Your task to perform on an android device: turn smart compose on in the gmail app Image 0: 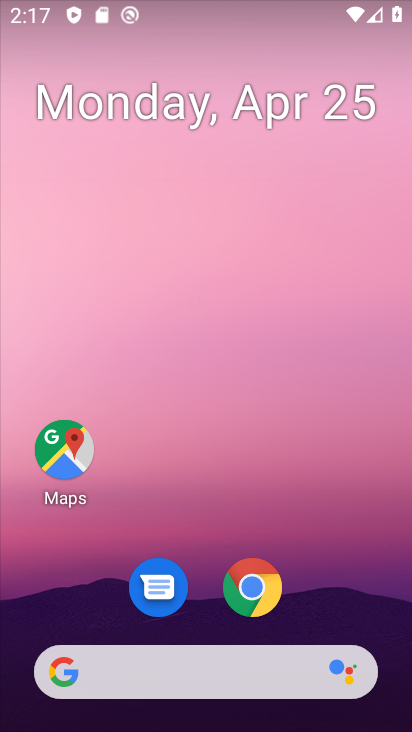
Step 0: drag from (275, 555) to (213, 221)
Your task to perform on an android device: turn smart compose on in the gmail app Image 1: 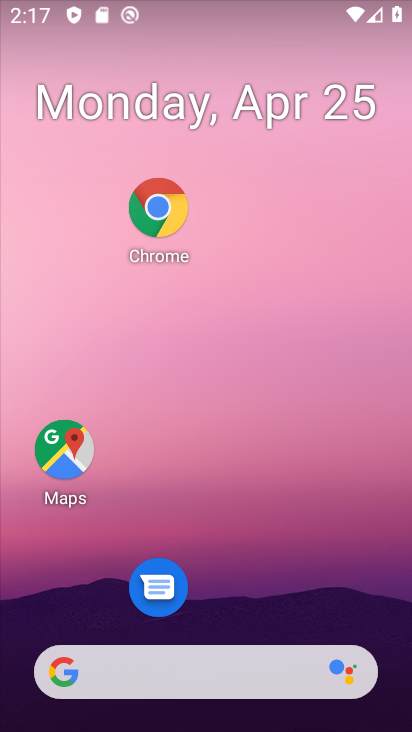
Step 1: click (245, 168)
Your task to perform on an android device: turn smart compose on in the gmail app Image 2: 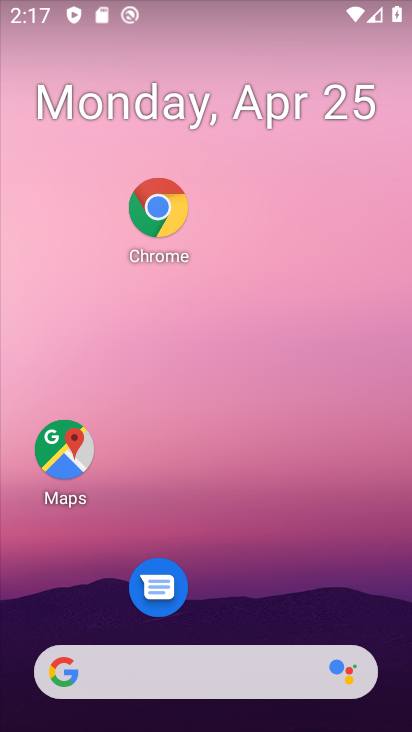
Step 2: drag from (303, 561) to (240, 205)
Your task to perform on an android device: turn smart compose on in the gmail app Image 3: 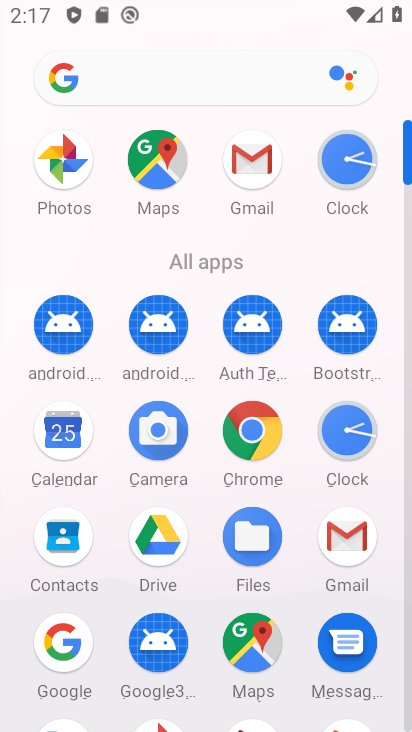
Step 3: click (232, 162)
Your task to perform on an android device: turn smart compose on in the gmail app Image 4: 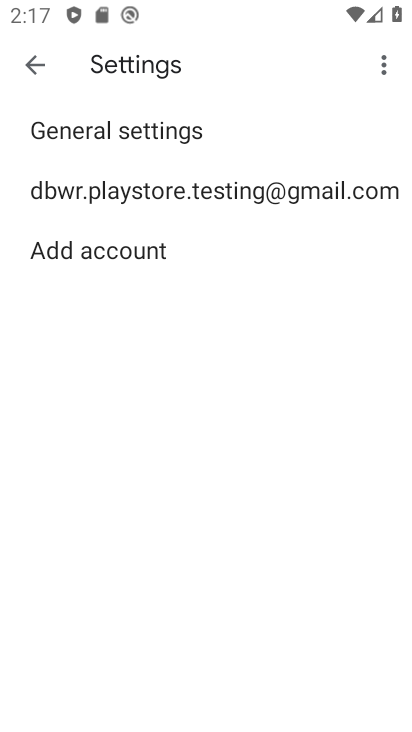
Step 4: click (226, 193)
Your task to perform on an android device: turn smart compose on in the gmail app Image 5: 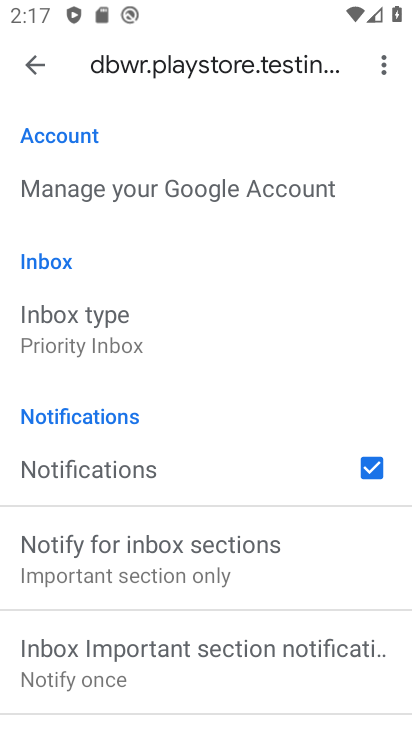
Step 5: task complete